Your task to perform on an android device: refresh tabs in the chrome app Image 0: 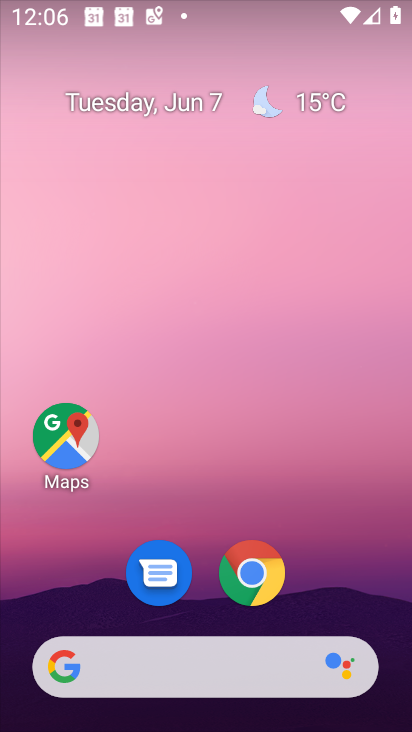
Step 0: press home button
Your task to perform on an android device: refresh tabs in the chrome app Image 1: 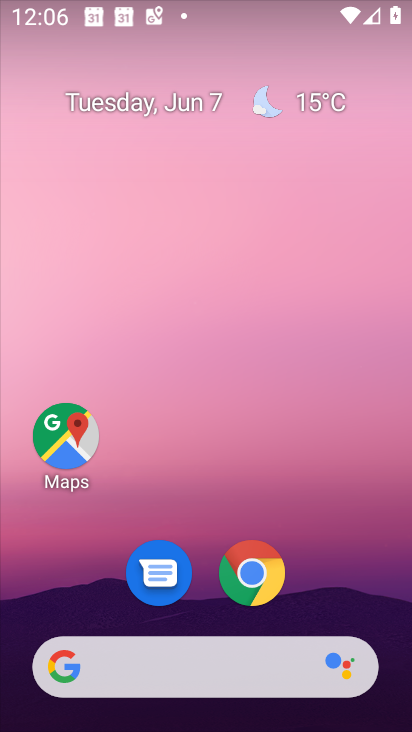
Step 1: click (260, 568)
Your task to perform on an android device: refresh tabs in the chrome app Image 2: 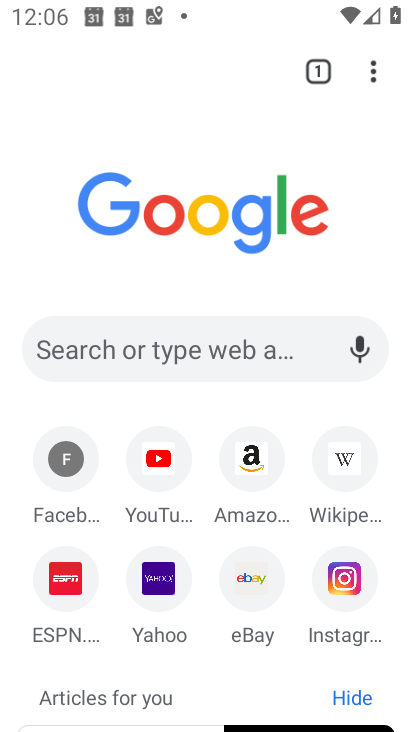
Step 2: click (374, 65)
Your task to perform on an android device: refresh tabs in the chrome app Image 3: 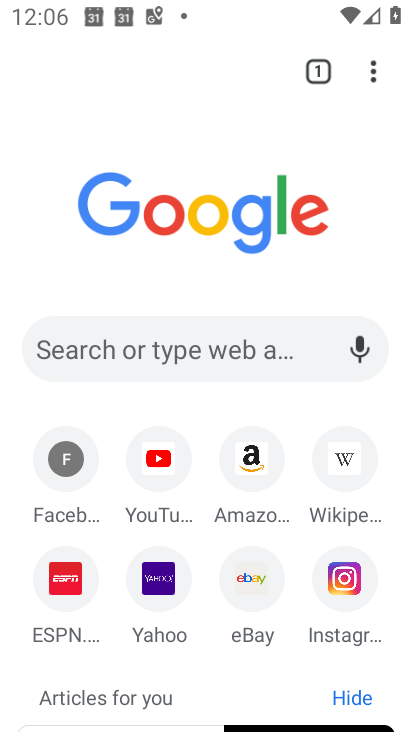
Step 3: click (374, 67)
Your task to perform on an android device: refresh tabs in the chrome app Image 4: 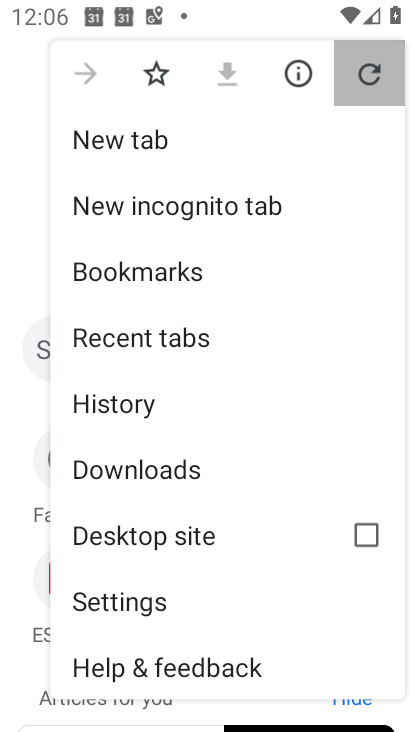
Step 4: click (374, 67)
Your task to perform on an android device: refresh tabs in the chrome app Image 5: 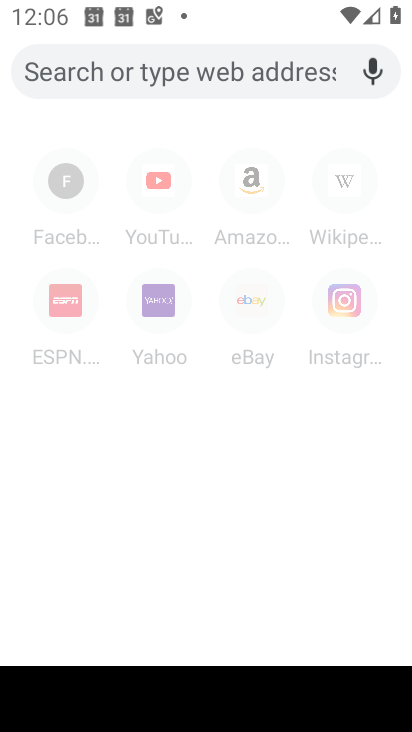
Step 5: task complete